Your task to perform on an android device: clear all cookies in the chrome app Image 0: 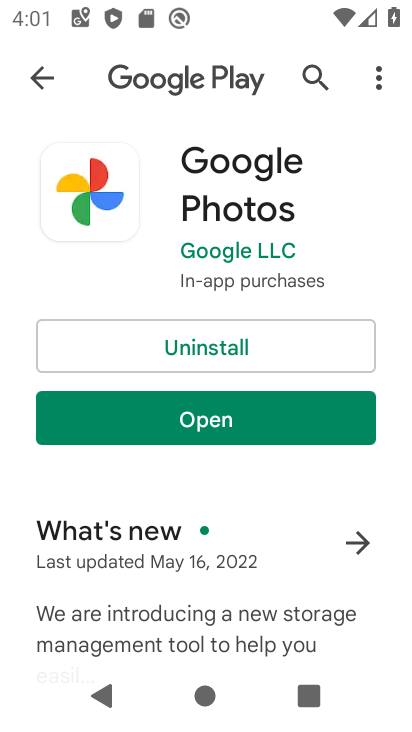
Step 0: press home button
Your task to perform on an android device: clear all cookies in the chrome app Image 1: 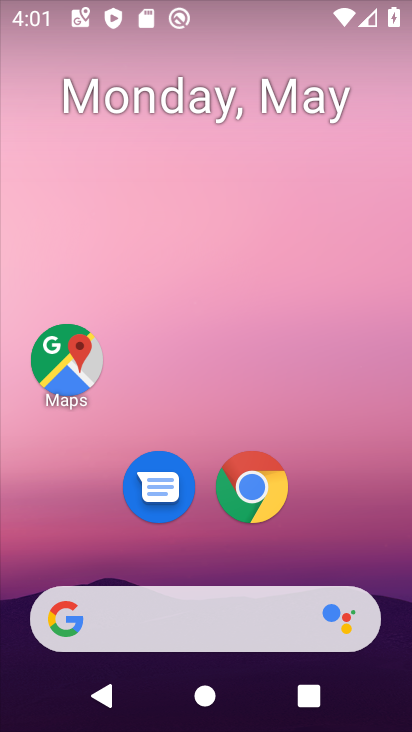
Step 1: click (264, 484)
Your task to perform on an android device: clear all cookies in the chrome app Image 2: 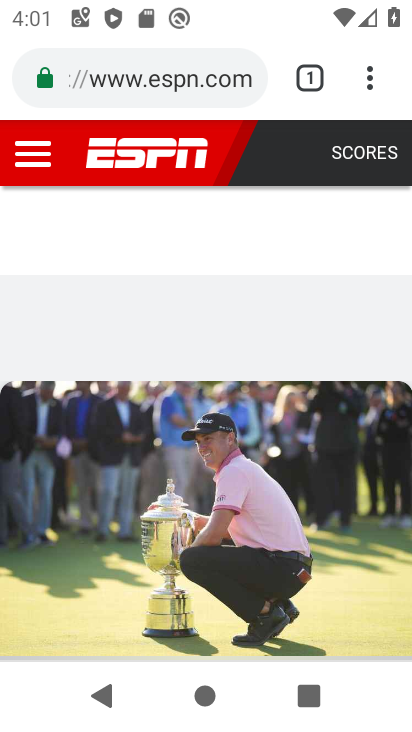
Step 2: click (367, 74)
Your task to perform on an android device: clear all cookies in the chrome app Image 3: 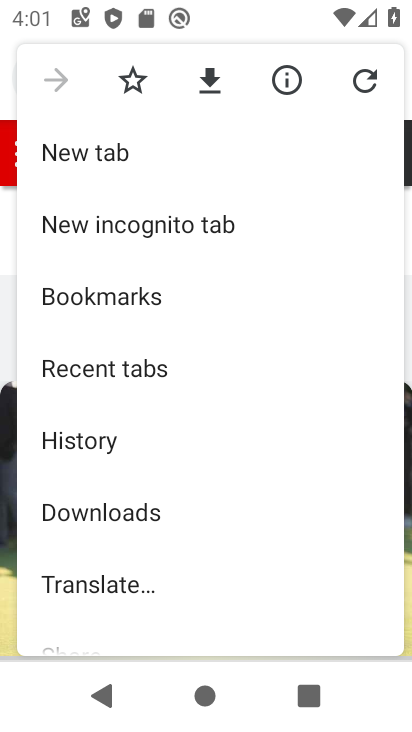
Step 3: drag from (148, 601) to (177, 240)
Your task to perform on an android device: clear all cookies in the chrome app Image 4: 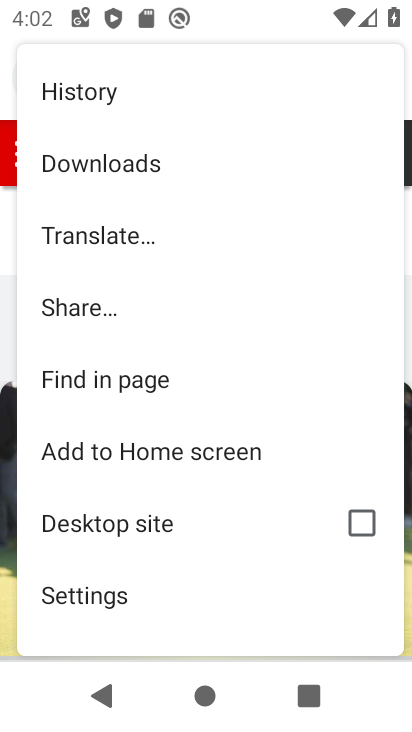
Step 4: click (74, 605)
Your task to perform on an android device: clear all cookies in the chrome app Image 5: 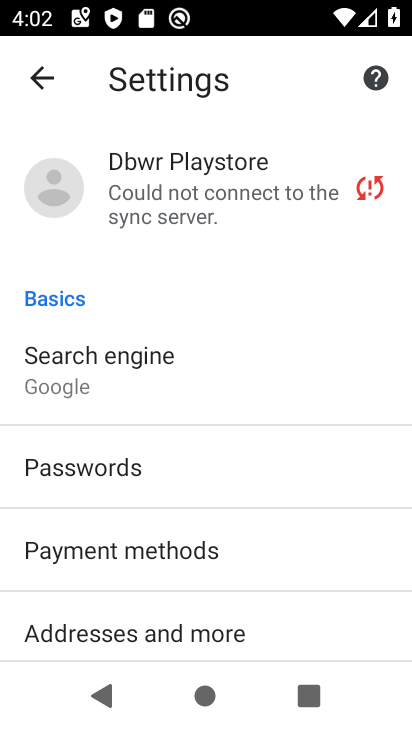
Step 5: drag from (96, 640) to (155, 378)
Your task to perform on an android device: clear all cookies in the chrome app Image 6: 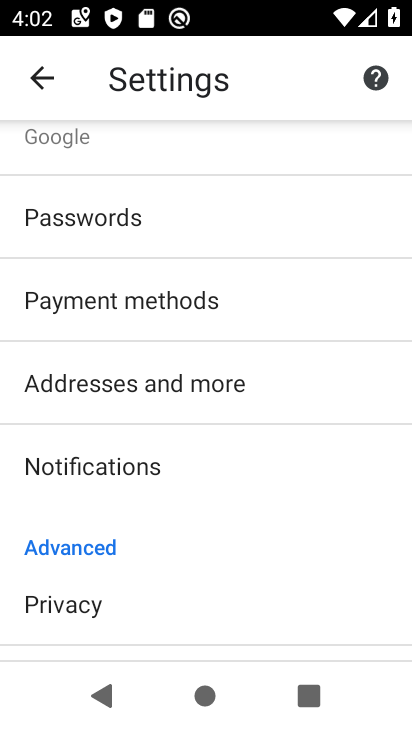
Step 6: click (84, 598)
Your task to perform on an android device: clear all cookies in the chrome app Image 7: 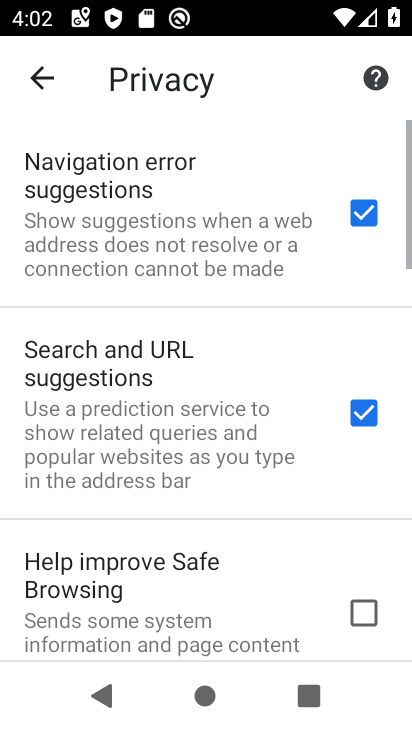
Step 7: drag from (136, 630) to (177, 225)
Your task to perform on an android device: clear all cookies in the chrome app Image 8: 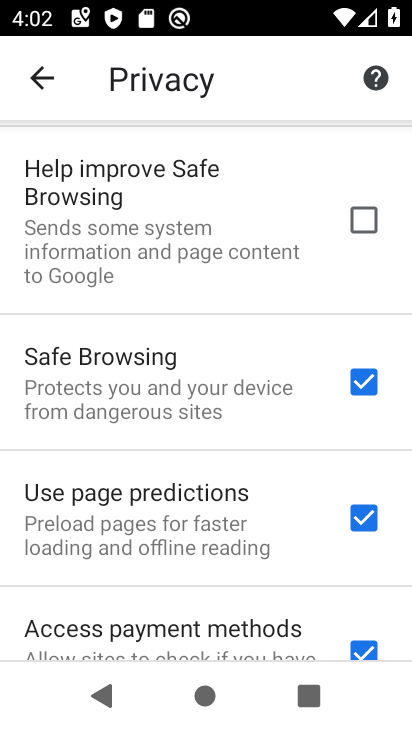
Step 8: drag from (146, 634) to (198, 298)
Your task to perform on an android device: clear all cookies in the chrome app Image 9: 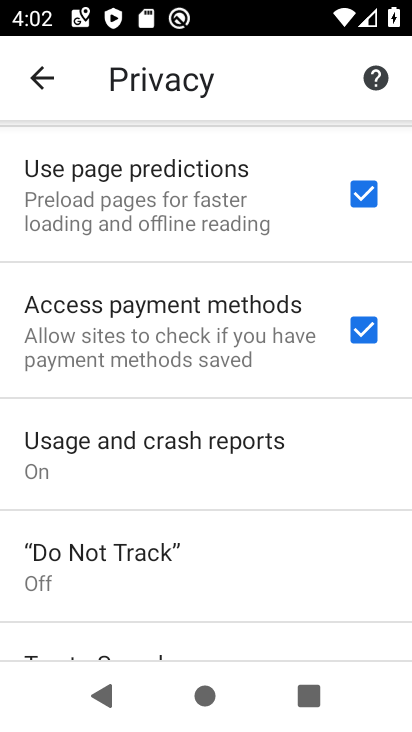
Step 9: drag from (142, 618) to (200, 278)
Your task to perform on an android device: clear all cookies in the chrome app Image 10: 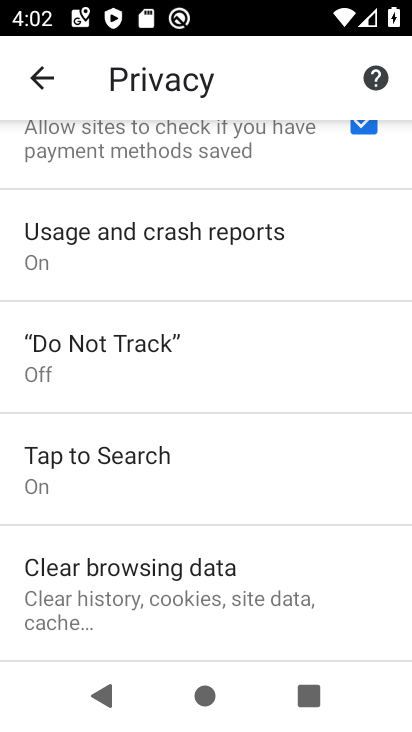
Step 10: click (131, 587)
Your task to perform on an android device: clear all cookies in the chrome app Image 11: 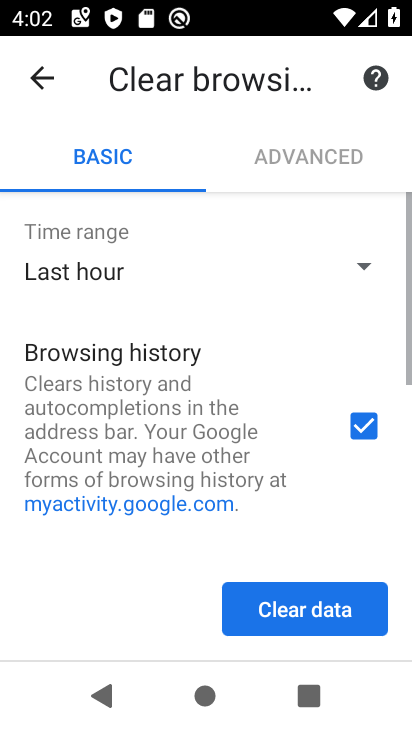
Step 11: drag from (316, 539) to (310, 230)
Your task to perform on an android device: clear all cookies in the chrome app Image 12: 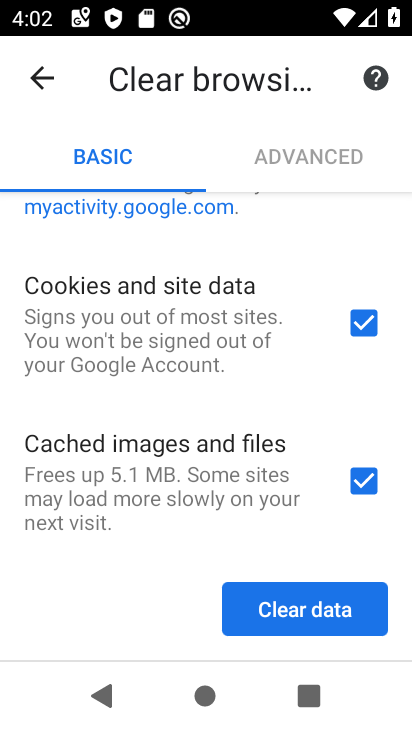
Step 12: click (366, 323)
Your task to perform on an android device: clear all cookies in the chrome app Image 13: 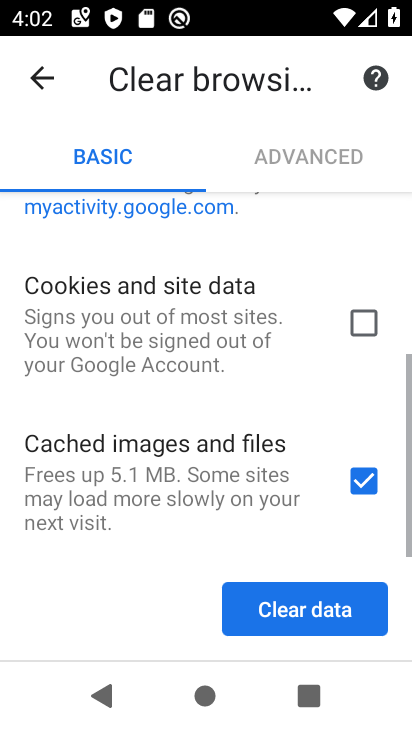
Step 13: click (358, 485)
Your task to perform on an android device: clear all cookies in the chrome app Image 14: 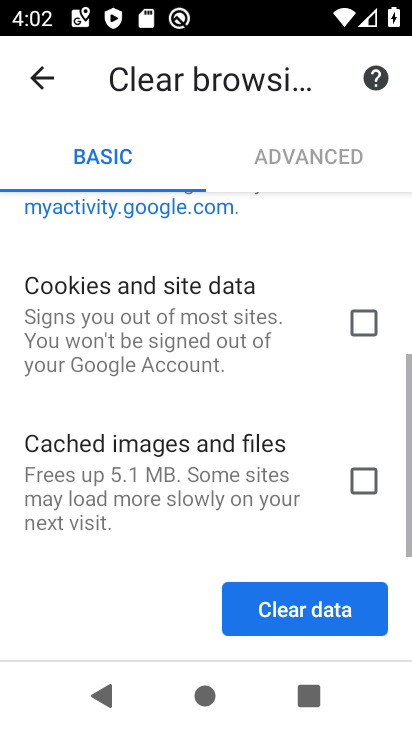
Step 14: drag from (287, 190) to (279, 436)
Your task to perform on an android device: clear all cookies in the chrome app Image 15: 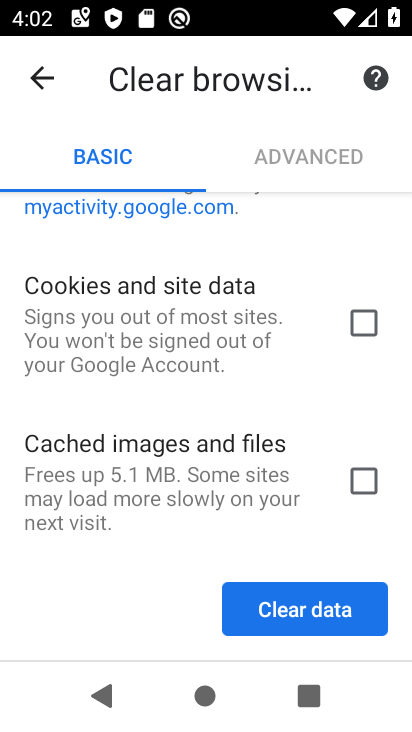
Step 15: drag from (324, 222) to (293, 419)
Your task to perform on an android device: clear all cookies in the chrome app Image 16: 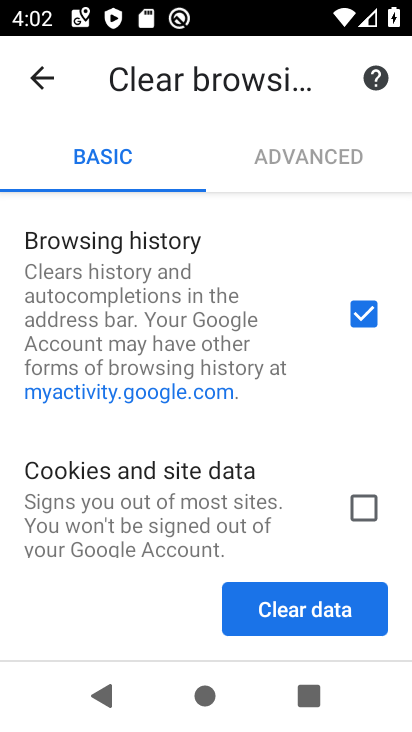
Step 16: click (362, 510)
Your task to perform on an android device: clear all cookies in the chrome app Image 17: 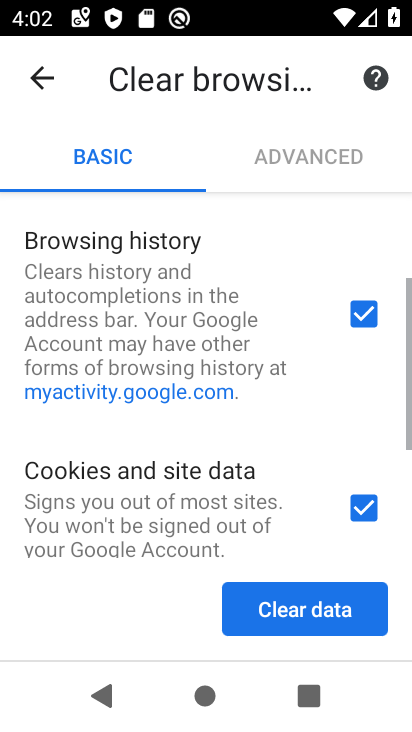
Step 17: click (366, 306)
Your task to perform on an android device: clear all cookies in the chrome app Image 18: 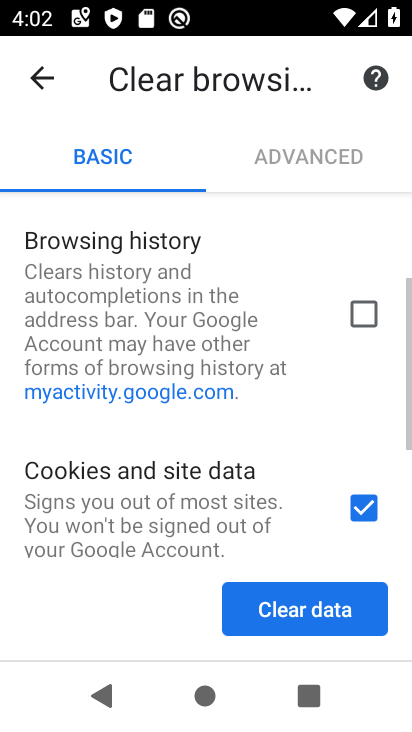
Step 18: click (289, 622)
Your task to perform on an android device: clear all cookies in the chrome app Image 19: 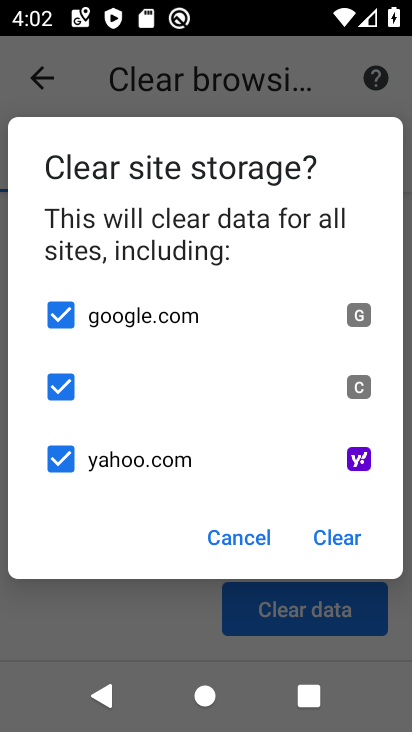
Step 19: click (344, 545)
Your task to perform on an android device: clear all cookies in the chrome app Image 20: 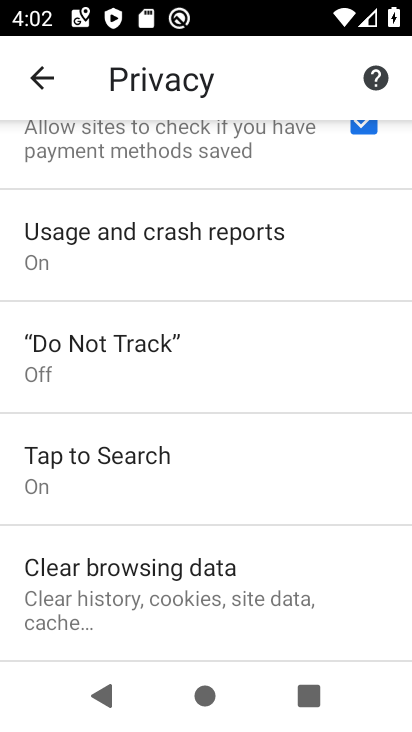
Step 20: task complete